Your task to perform on an android device: Open CNN.com Image 0: 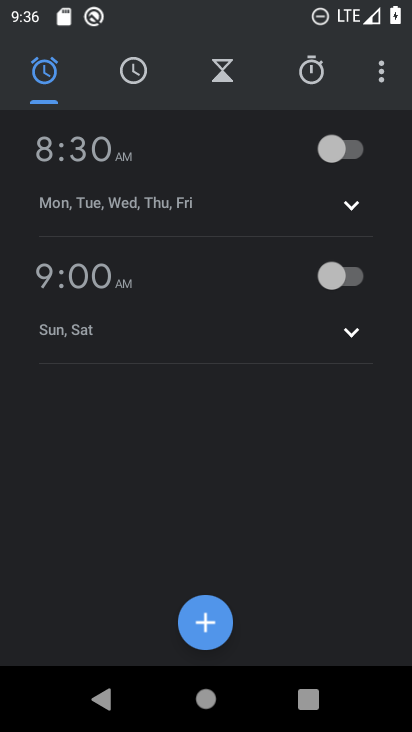
Step 0: press home button
Your task to perform on an android device: Open CNN.com Image 1: 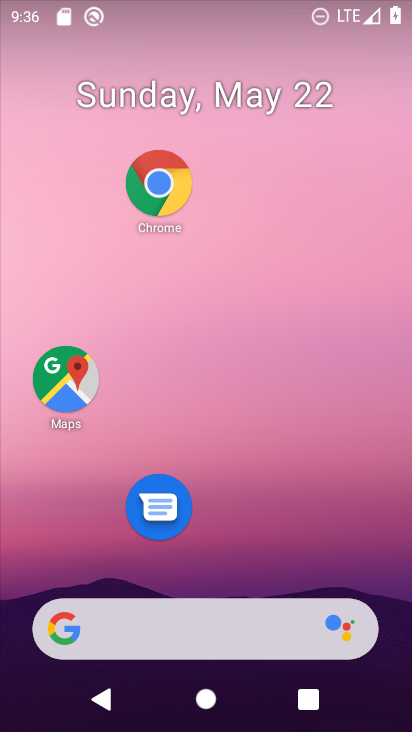
Step 1: click (203, 637)
Your task to perform on an android device: Open CNN.com Image 2: 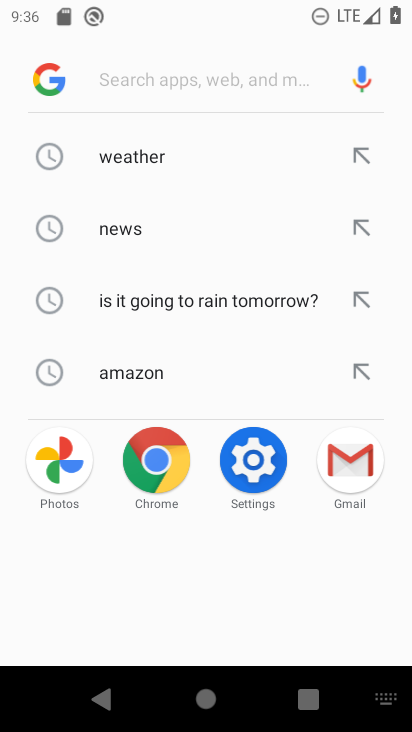
Step 2: type "cnn.com"
Your task to perform on an android device: Open CNN.com Image 3: 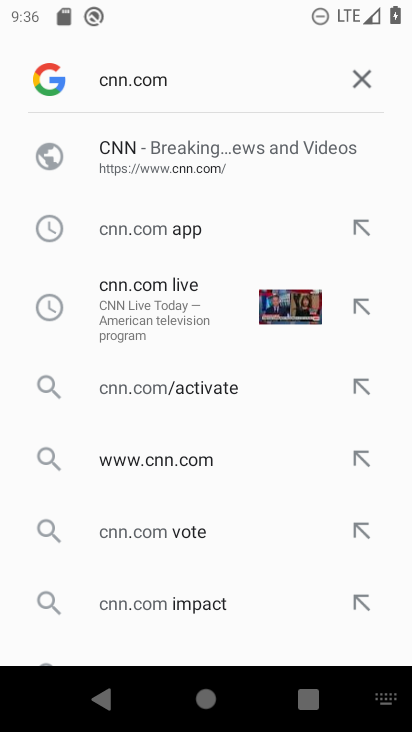
Step 3: click (281, 140)
Your task to perform on an android device: Open CNN.com Image 4: 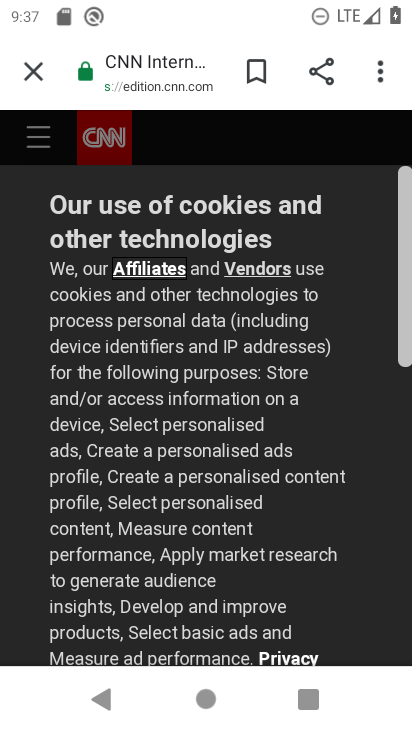
Step 4: task complete